Your task to perform on an android device: turn on the 24-hour format for clock Image 0: 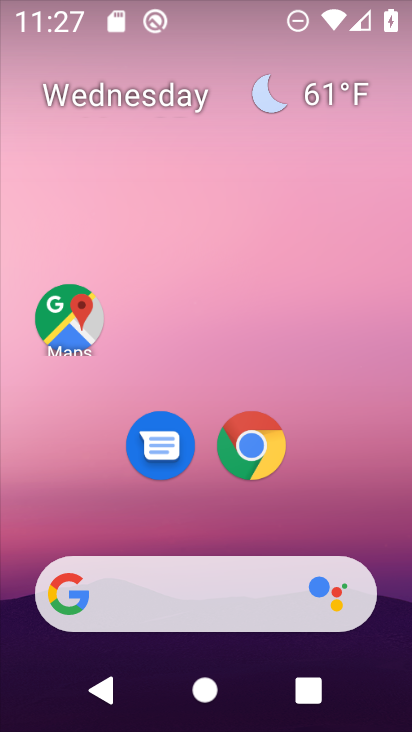
Step 0: drag from (349, 504) to (331, 125)
Your task to perform on an android device: turn on the 24-hour format for clock Image 1: 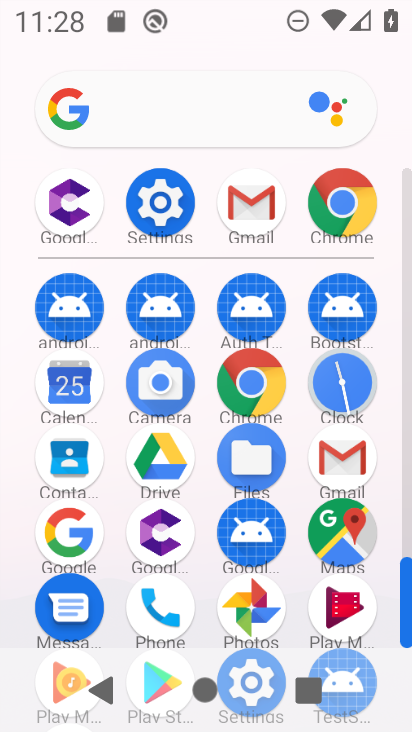
Step 1: click (323, 392)
Your task to perform on an android device: turn on the 24-hour format for clock Image 2: 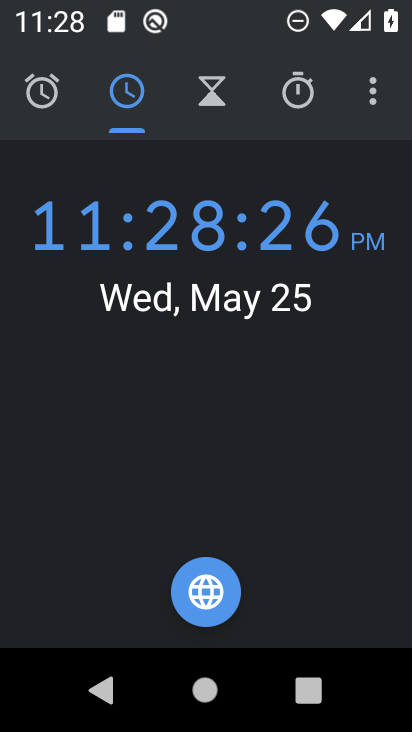
Step 2: click (368, 105)
Your task to perform on an android device: turn on the 24-hour format for clock Image 3: 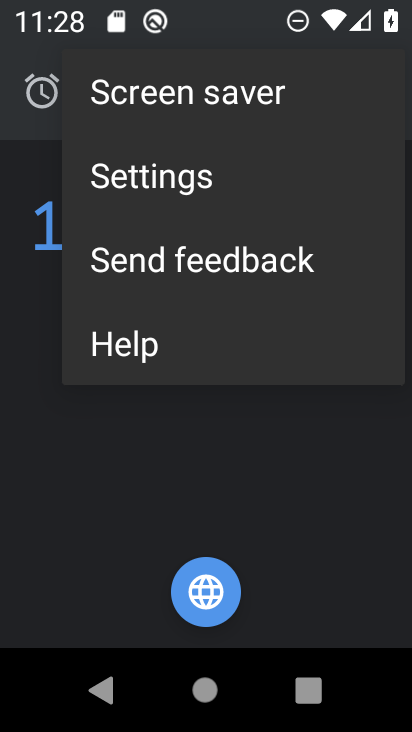
Step 3: click (301, 184)
Your task to perform on an android device: turn on the 24-hour format for clock Image 4: 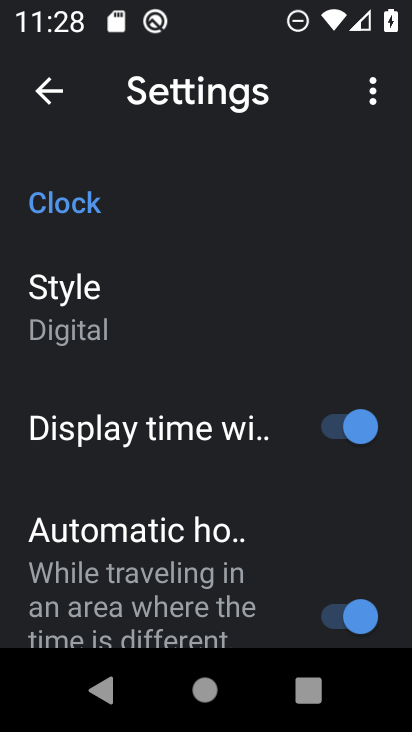
Step 4: drag from (213, 510) to (249, 177)
Your task to perform on an android device: turn on the 24-hour format for clock Image 5: 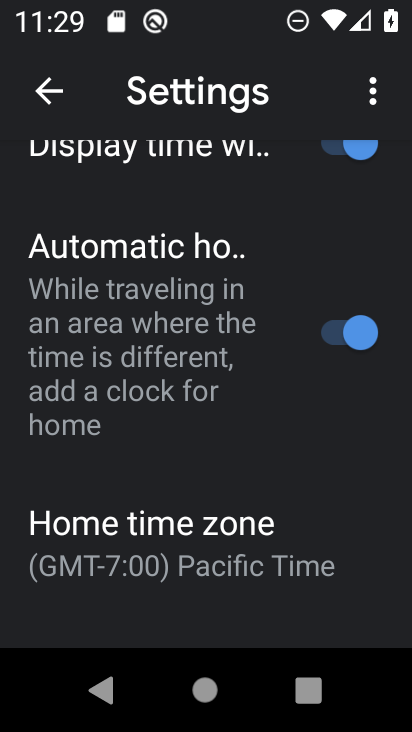
Step 5: drag from (272, 569) to (272, 245)
Your task to perform on an android device: turn on the 24-hour format for clock Image 6: 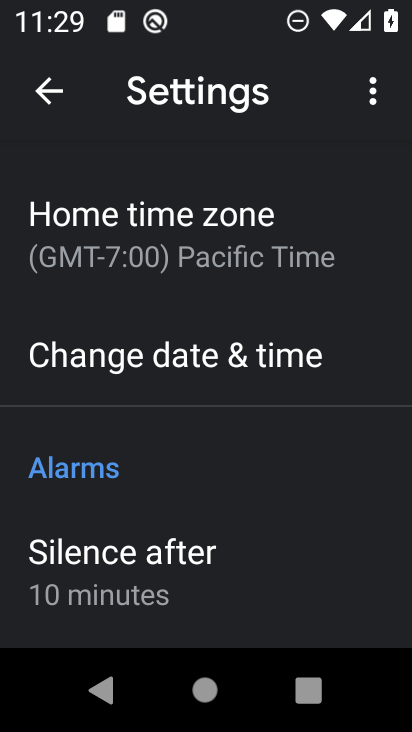
Step 6: click (242, 366)
Your task to perform on an android device: turn on the 24-hour format for clock Image 7: 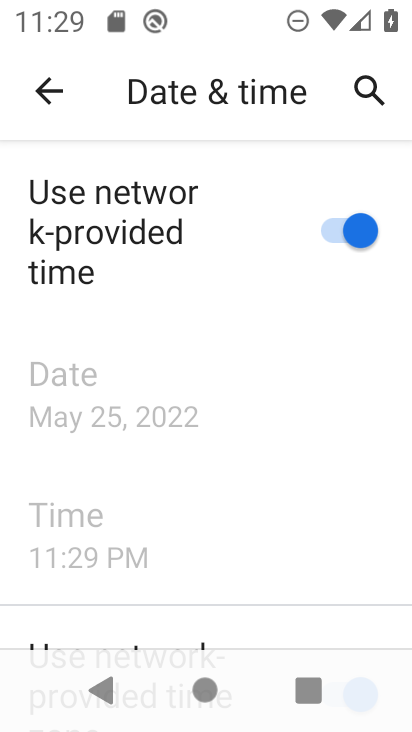
Step 7: drag from (239, 512) to (222, 230)
Your task to perform on an android device: turn on the 24-hour format for clock Image 8: 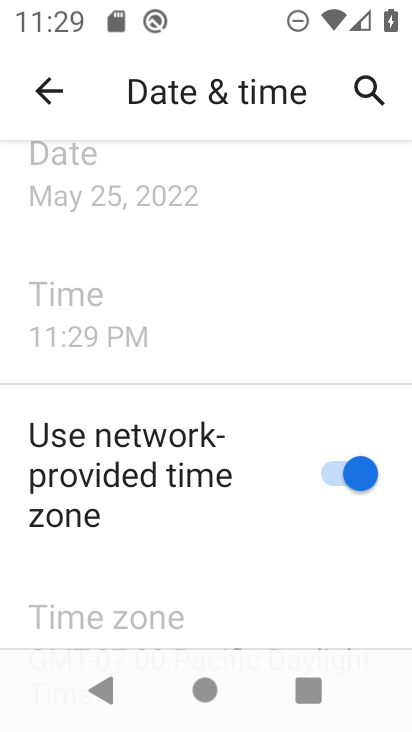
Step 8: drag from (229, 588) to (233, 319)
Your task to perform on an android device: turn on the 24-hour format for clock Image 9: 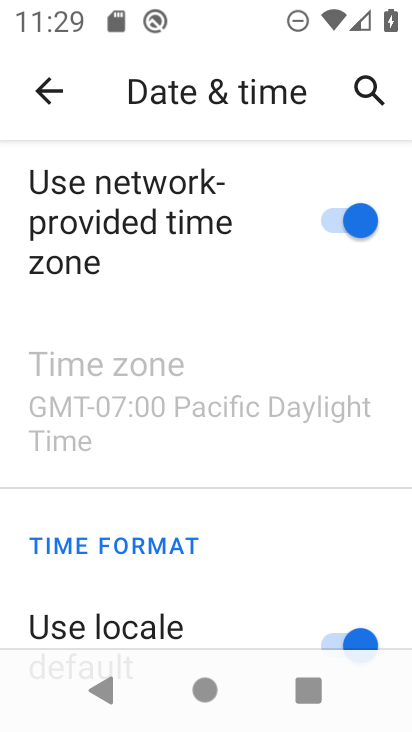
Step 9: drag from (227, 607) to (264, 281)
Your task to perform on an android device: turn on the 24-hour format for clock Image 10: 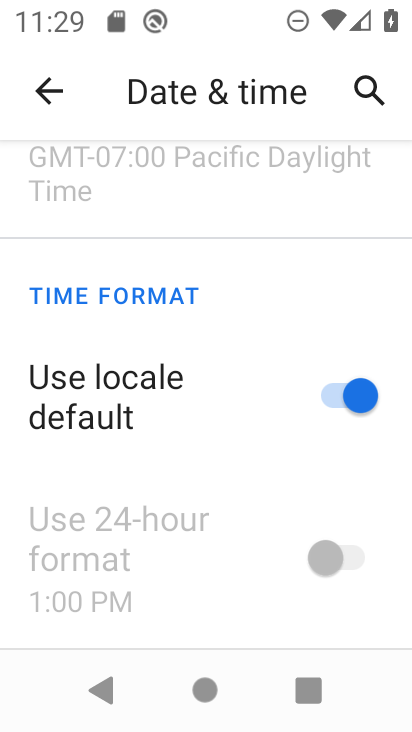
Step 10: click (347, 394)
Your task to perform on an android device: turn on the 24-hour format for clock Image 11: 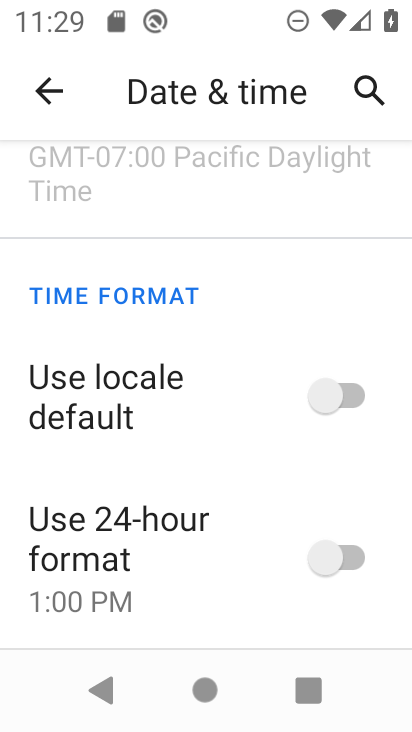
Step 11: click (350, 562)
Your task to perform on an android device: turn on the 24-hour format for clock Image 12: 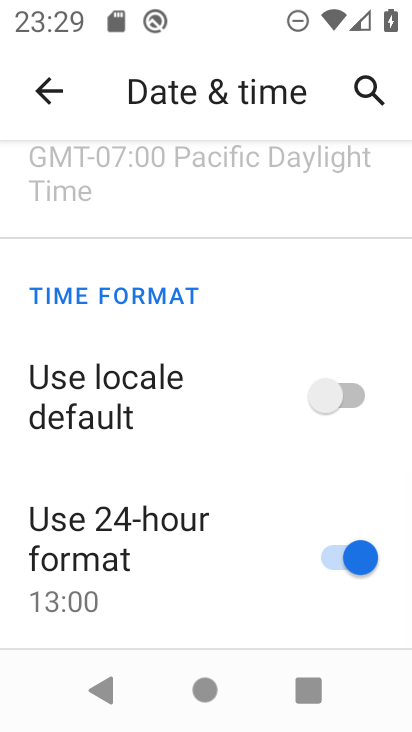
Step 12: task complete